Your task to perform on an android device: move a message to another label in the gmail app Image 0: 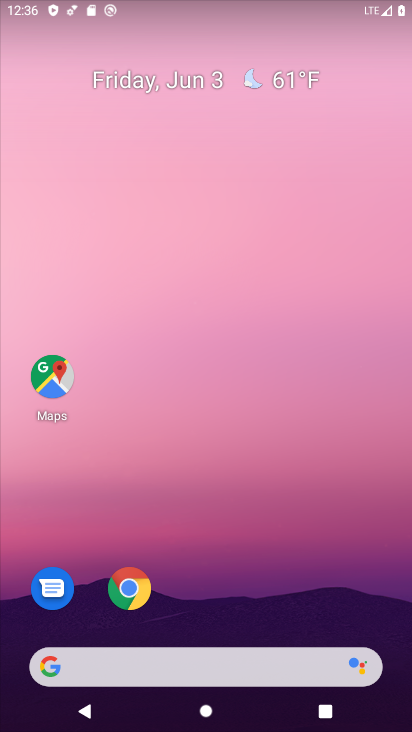
Step 0: click (171, 629)
Your task to perform on an android device: move a message to another label in the gmail app Image 1: 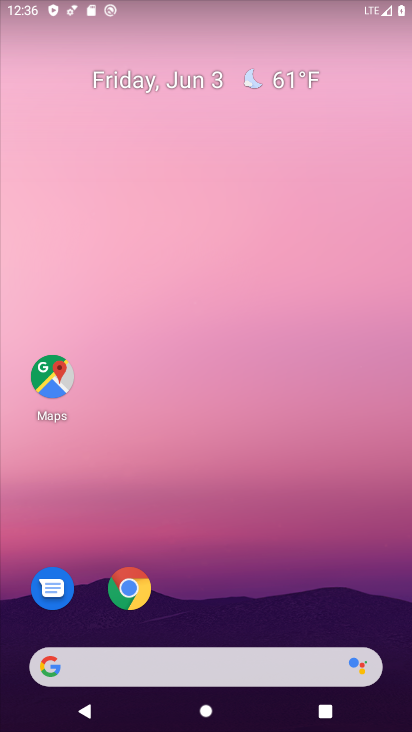
Step 1: drag from (207, 592) to (272, 139)
Your task to perform on an android device: move a message to another label in the gmail app Image 2: 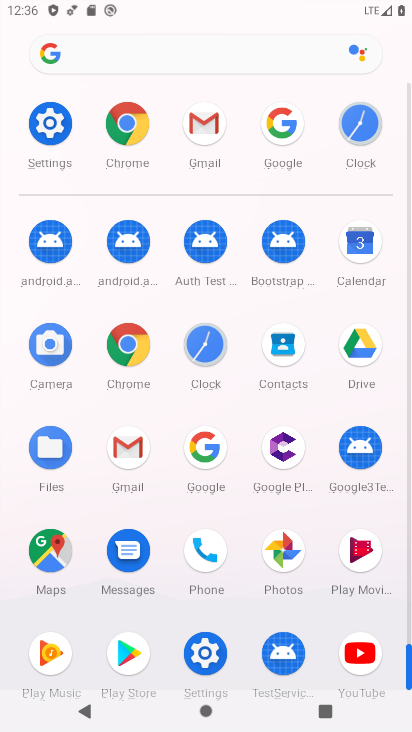
Step 2: click (138, 453)
Your task to perform on an android device: move a message to another label in the gmail app Image 3: 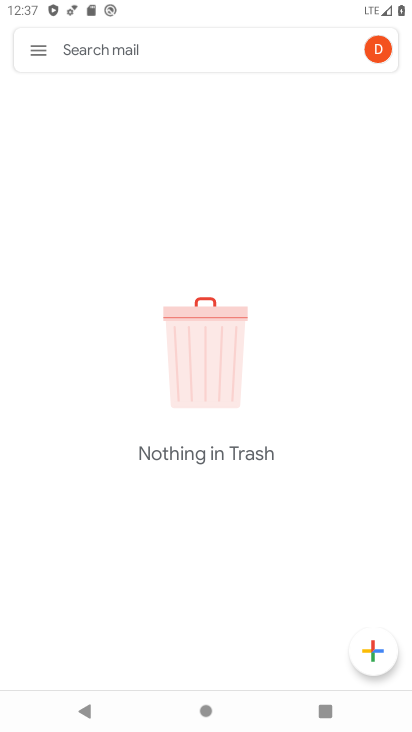
Step 3: task complete